Your task to perform on an android device: turn on translation in the chrome app Image 0: 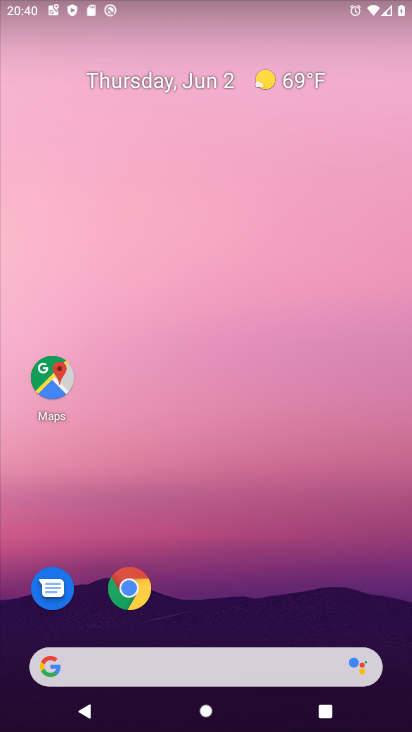
Step 0: click (126, 595)
Your task to perform on an android device: turn on translation in the chrome app Image 1: 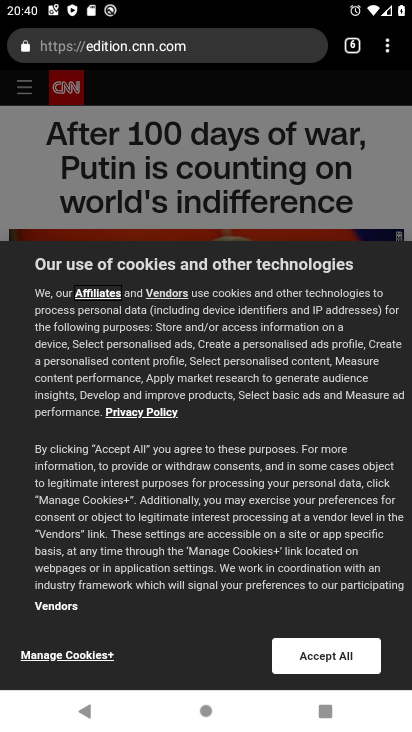
Step 1: click (389, 57)
Your task to perform on an android device: turn on translation in the chrome app Image 2: 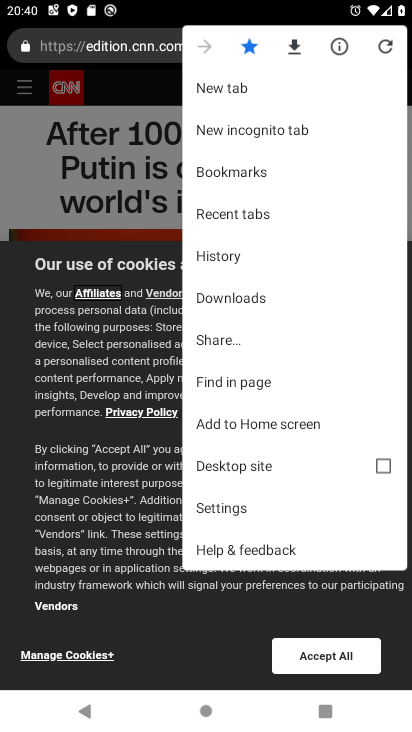
Step 2: click (226, 505)
Your task to perform on an android device: turn on translation in the chrome app Image 3: 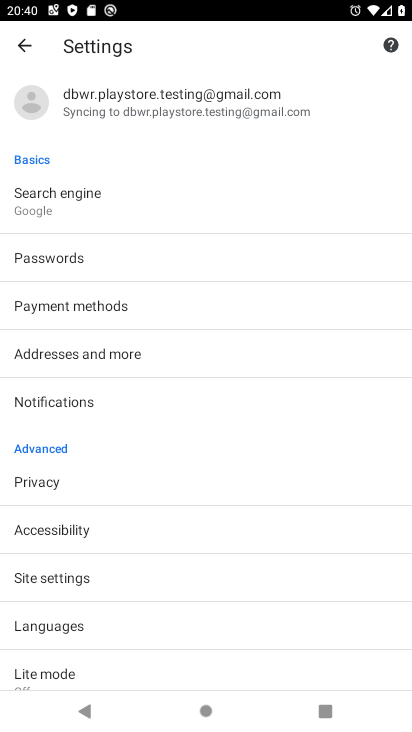
Step 3: click (47, 625)
Your task to perform on an android device: turn on translation in the chrome app Image 4: 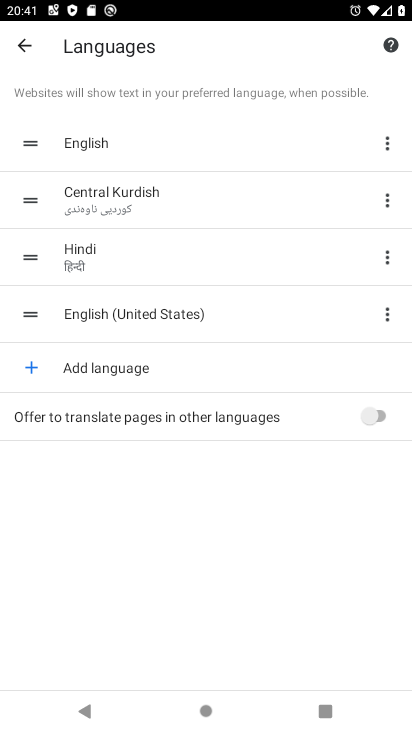
Step 4: click (385, 414)
Your task to perform on an android device: turn on translation in the chrome app Image 5: 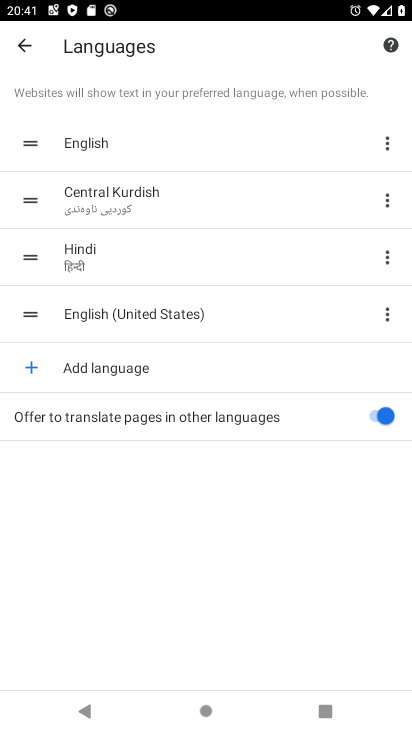
Step 5: task complete